Your task to perform on an android device: turn on improve location accuracy Image 0: 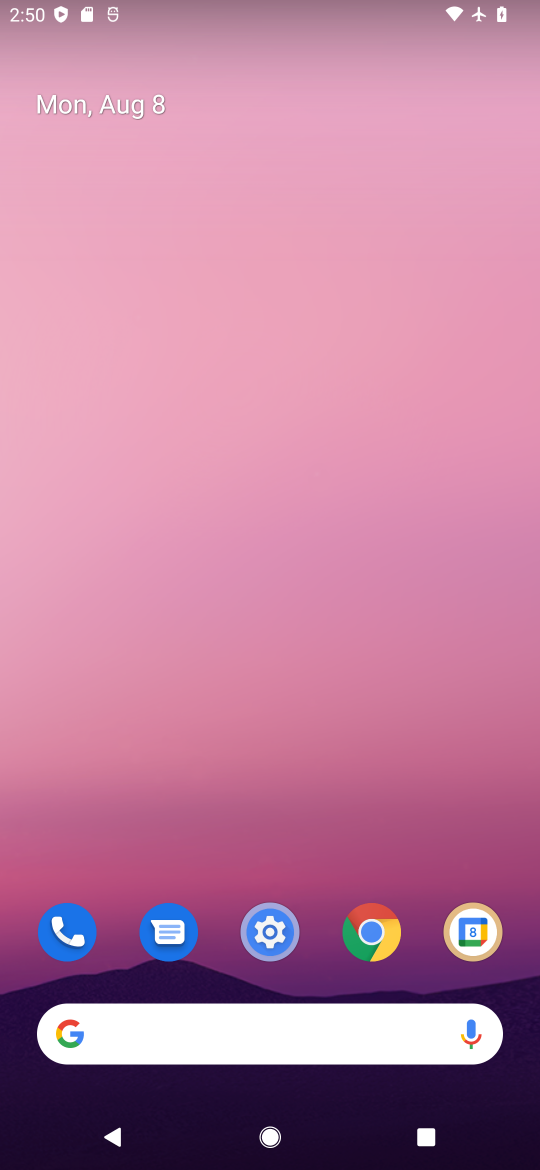
Step 0: drag from (358, 802) to (438, 51)
Your task to perform on an android device: turn on improve location accuracy Image 1: 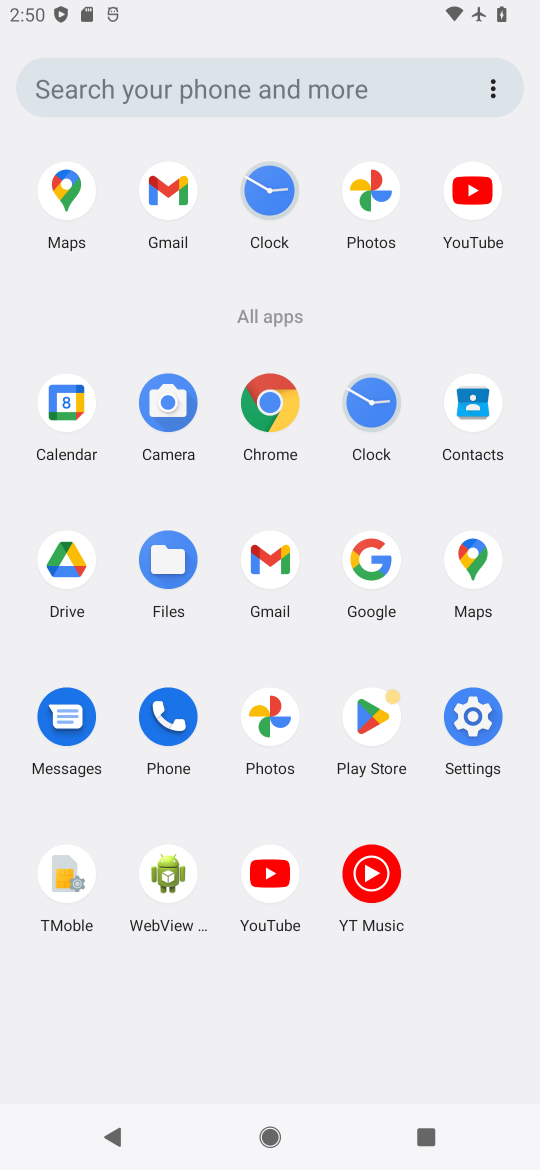
Step 1: click (480, 734)
Your task to perform on an android device: turn on improve location accuracy Image 2: 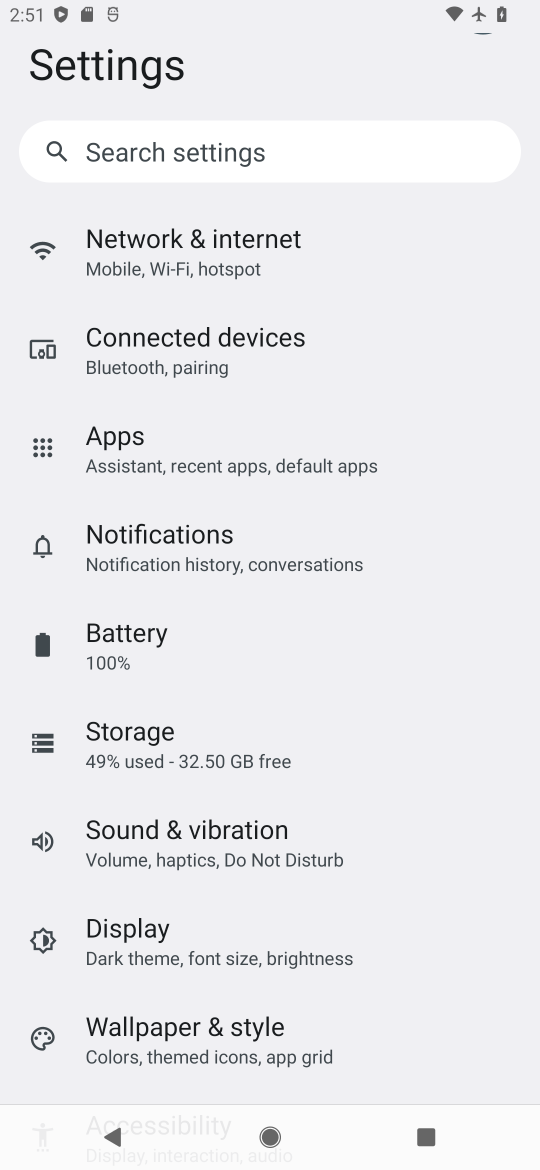
Step 2: drag from (297, 786) to (331, 47)
Your task to perform on an android device: turn on improve location accuracy Image 3: 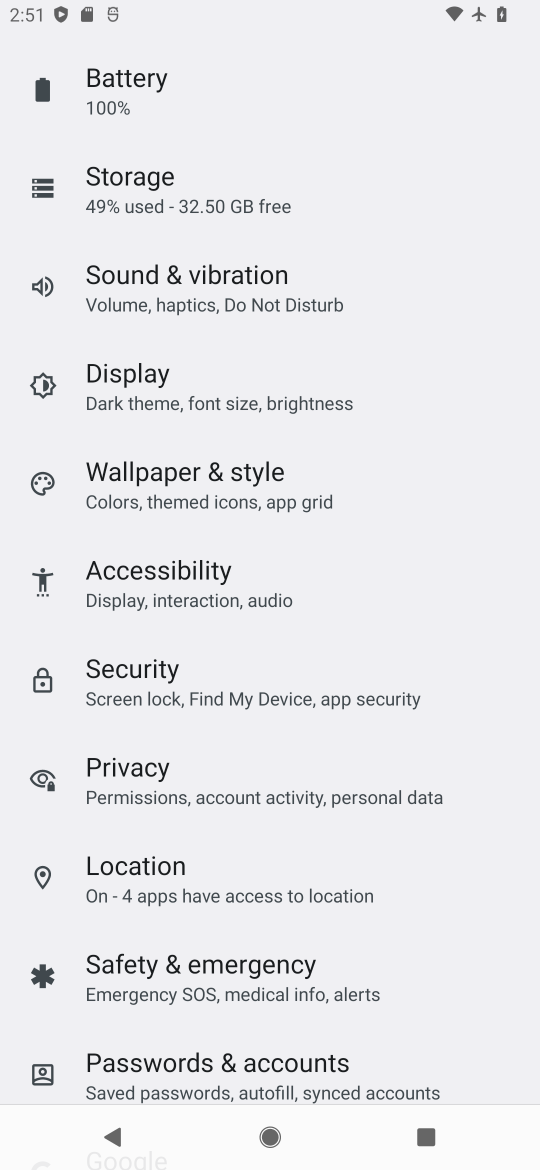
Step 3: click (132, 892)
Your task to perform on an android device: turn on improve location accuracy Image 4: 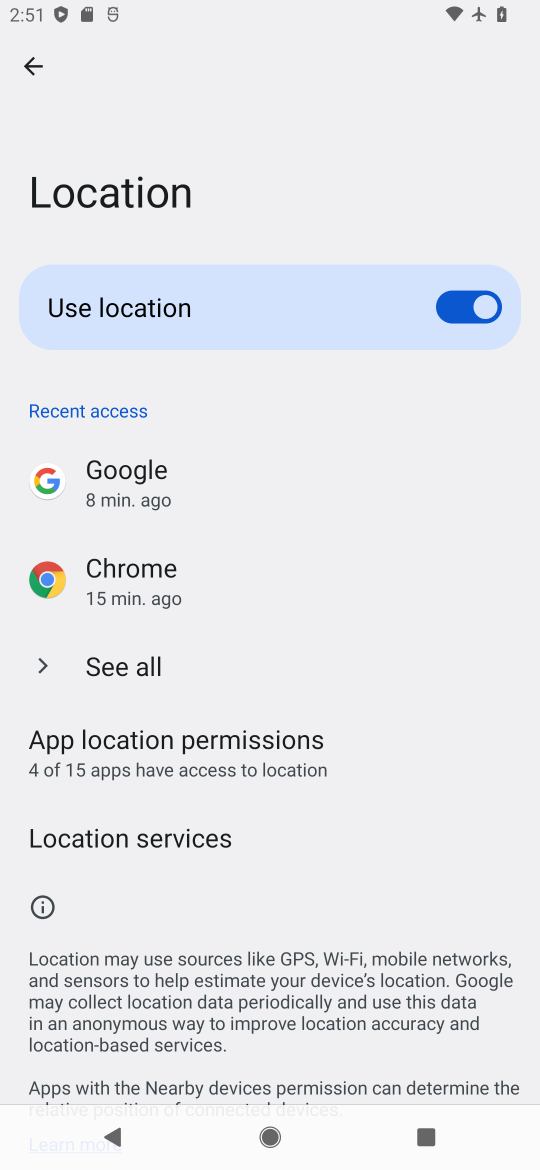
Step 4: click (154, 842)
Your task to perform on an android device: turn on improve location accuracy Image 5: 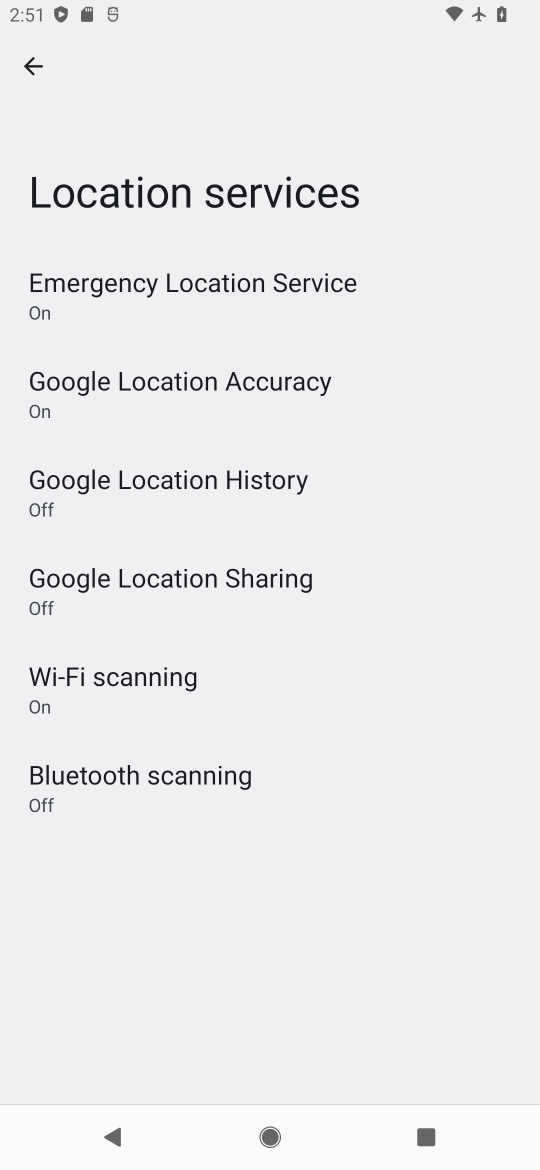
Step 5: click (304, 387)
Your task to perform on an android device: turn on improve location accuracy Image 6: 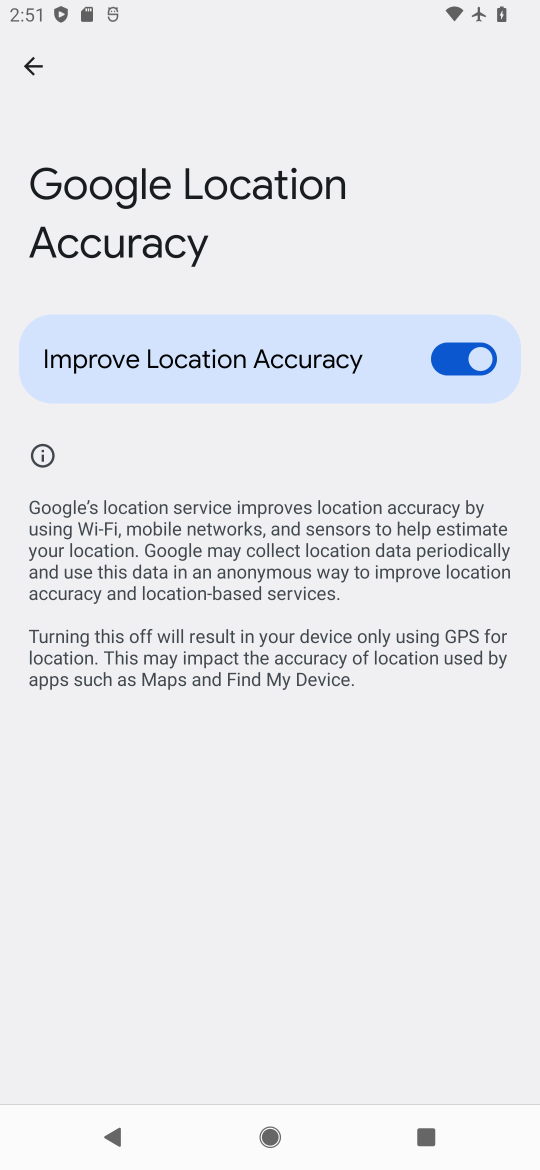
Step 6: task complete